Your task to perform on an android device: make emails show in primary in the gmail app Image 0: 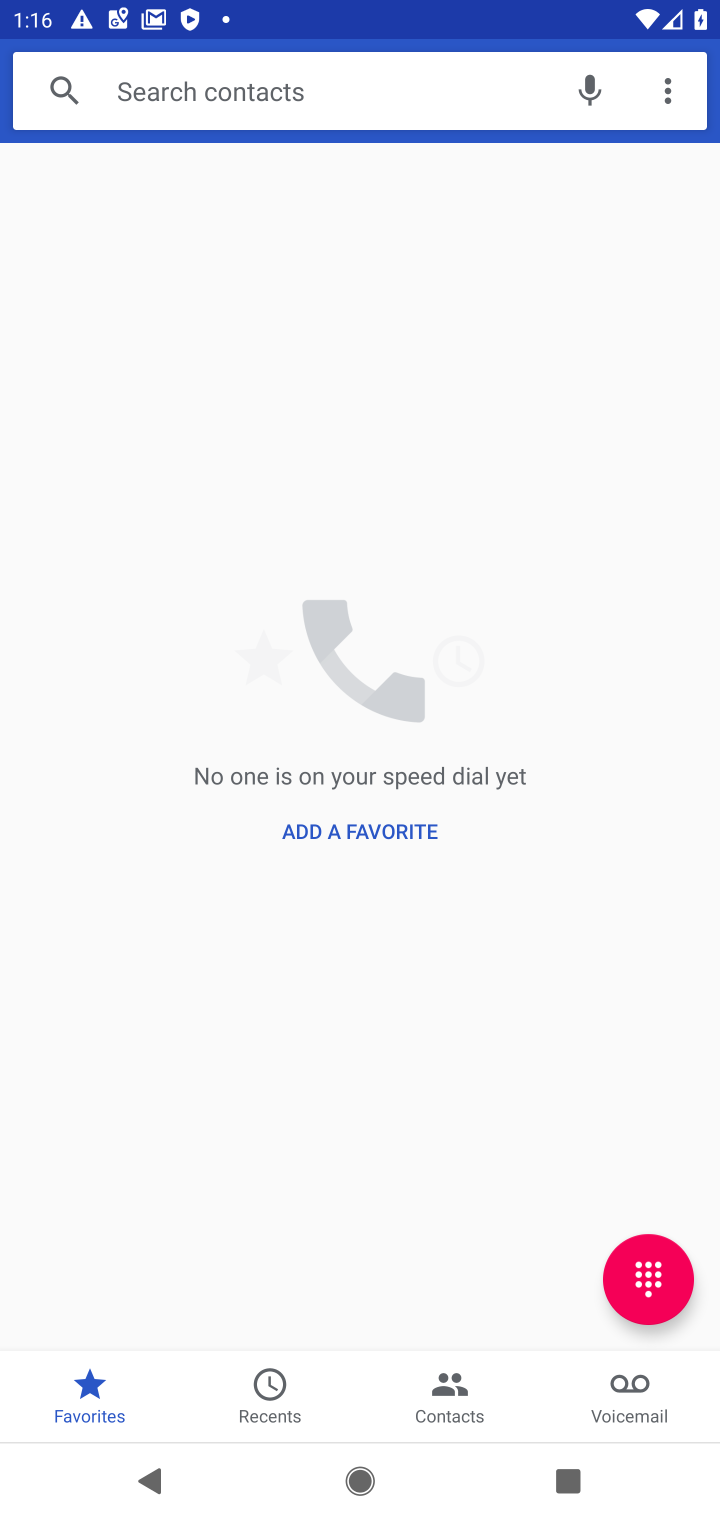
Step 0: press home button
Your task to perform on an android device: make emails show in primary in the gmail app Image 1: 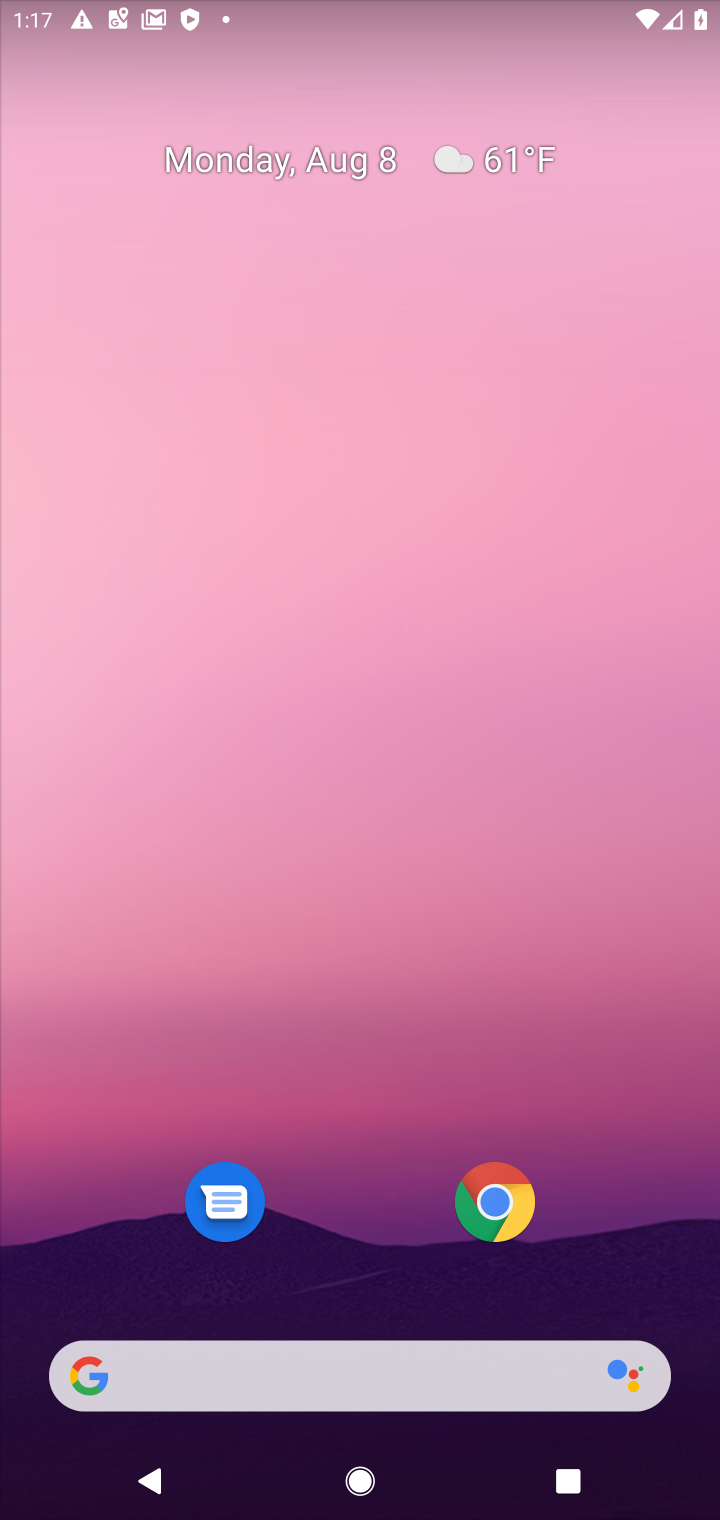
Step 1: drag from (653, 1261) to (649, 76)
Your task to perform on an android device: make emails show in primary in the gmail app Image 2: 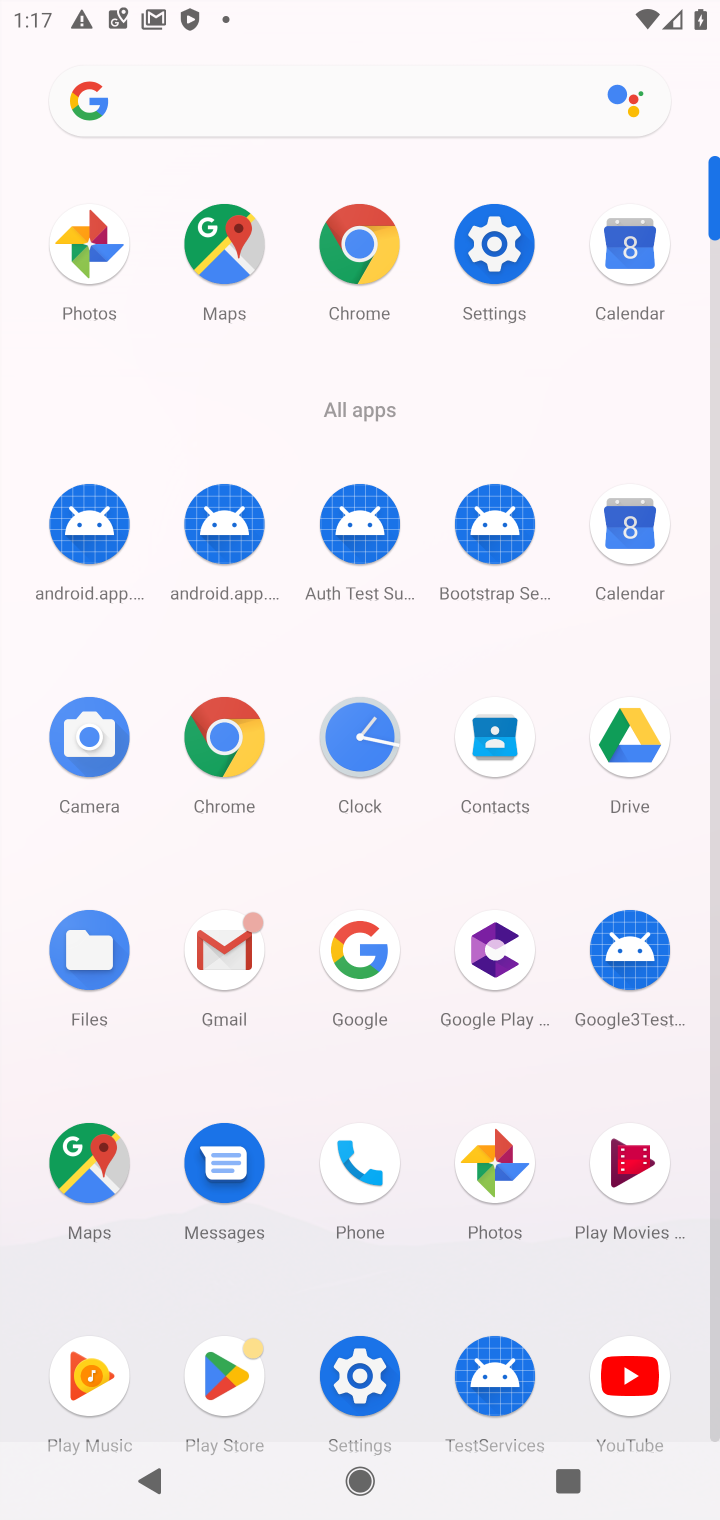
Step 2: click (215, 952)
Your task to perform on an android device: make emails show in primary in the gmail app Image 3: 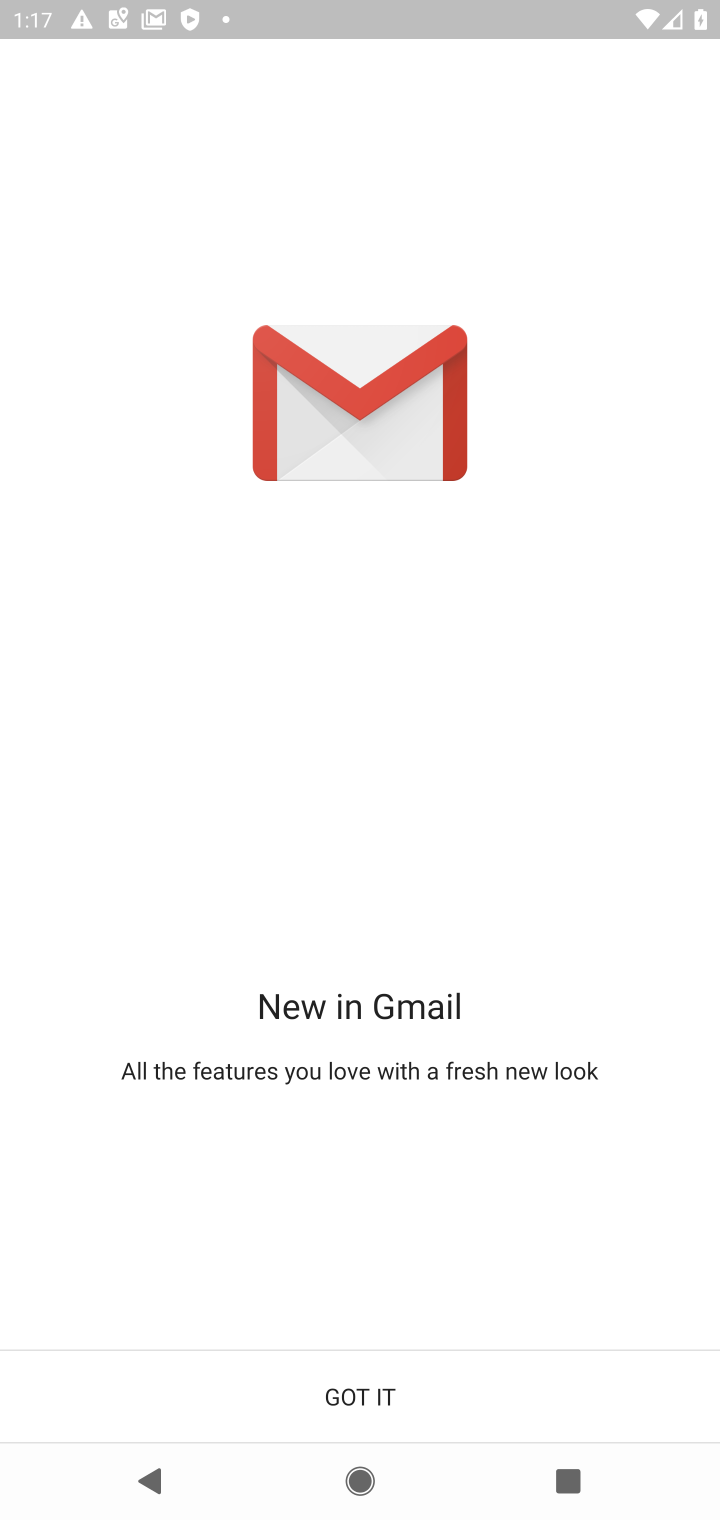
Step 3: click (364, 1391)
Your task to perform on an android device: make emails show in primary in the gmail app Image 4: 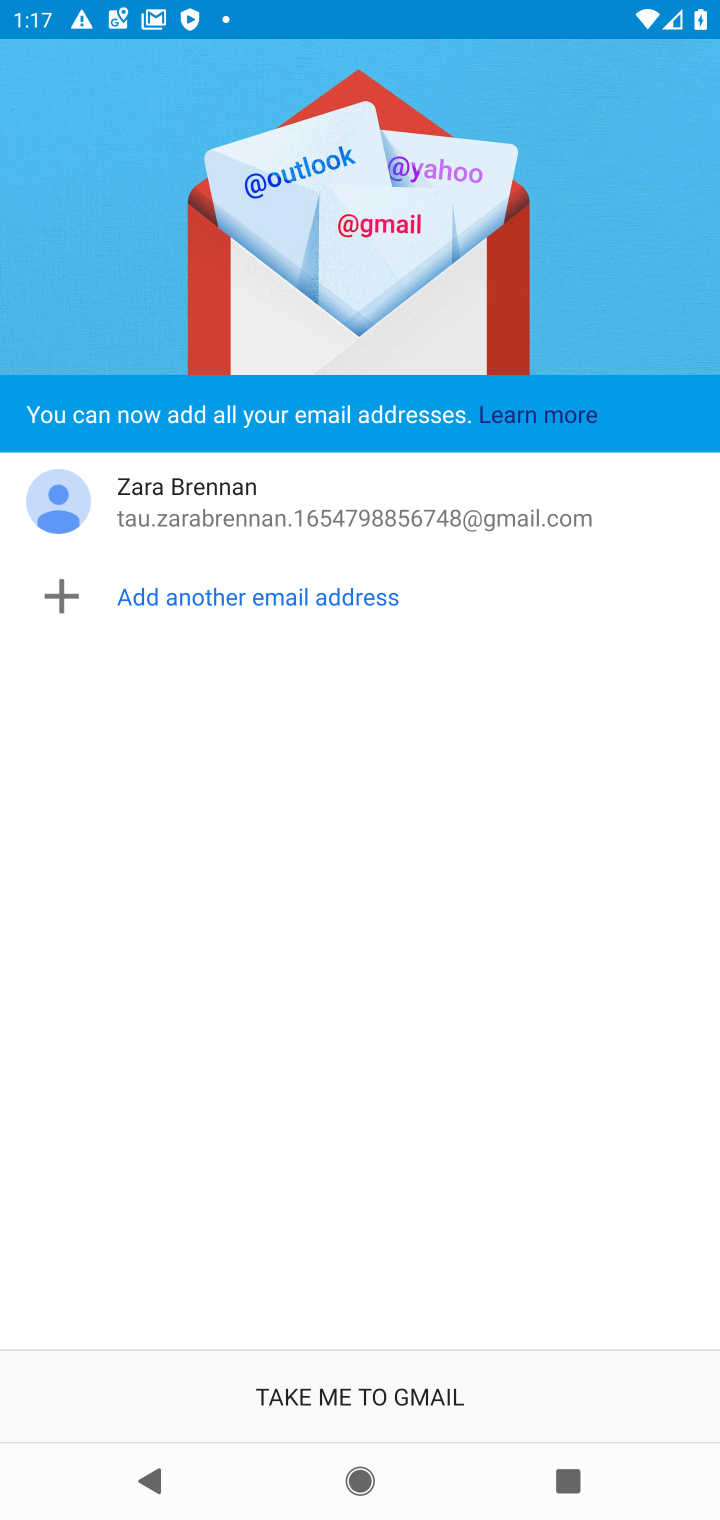
Step 4: click (364, 1391)
Your task to perform on an android device: make emails show in primary in the gmail app Image 5: 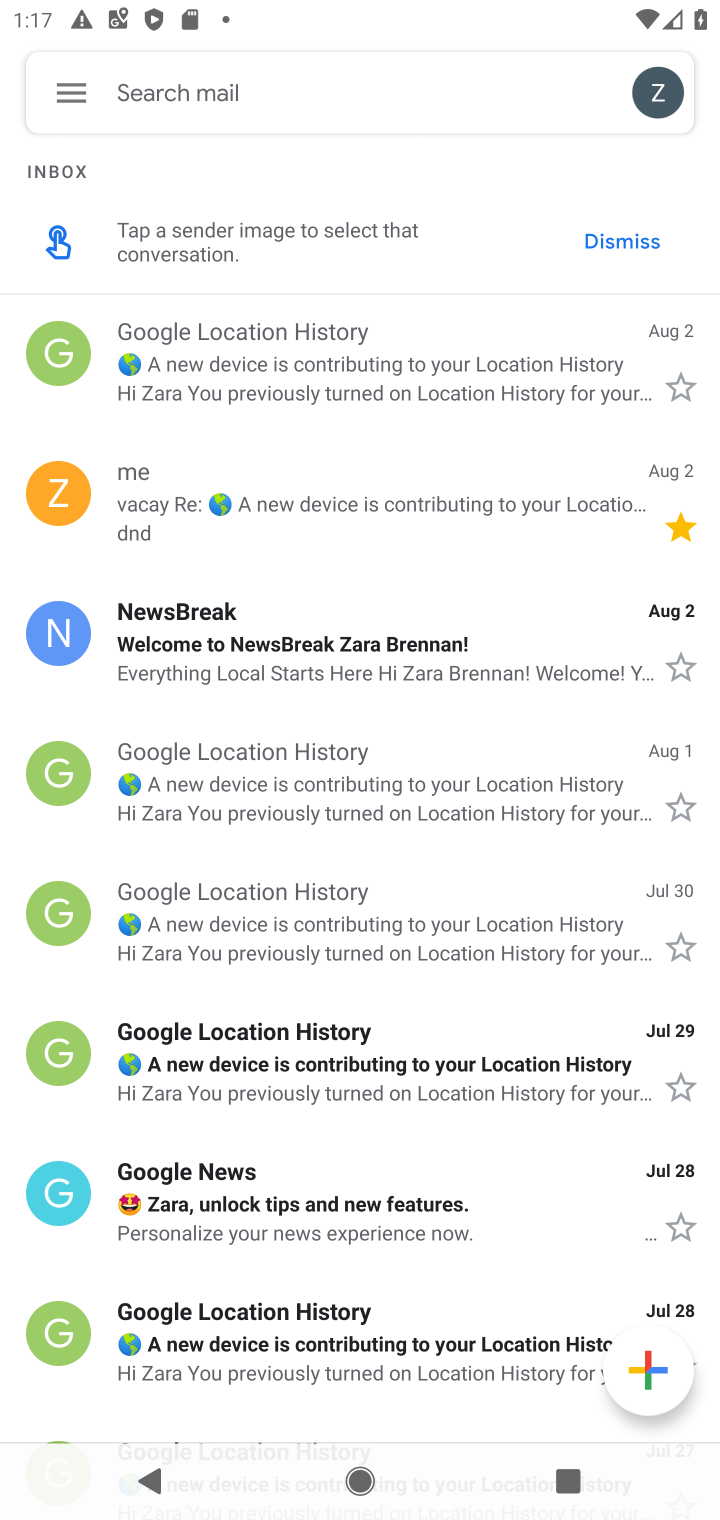
Step 5: click (64, 100)
Your task to perform on an android device: make emails show in primary in the gmail app Image 6: 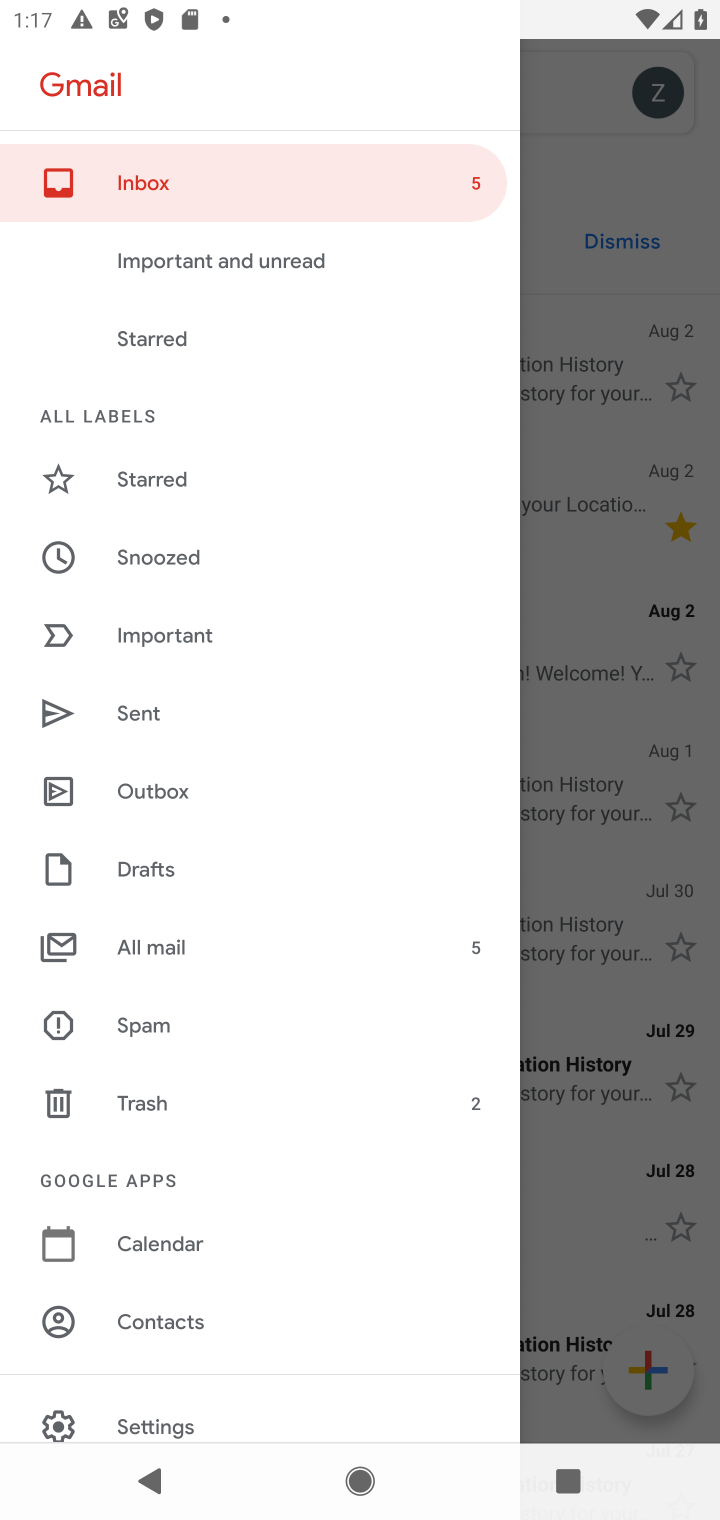
Step 6: drag from (399, 928) to (417, 575)
Your task to perform on an android device: make emails show in primary in the gmail app Image 7: 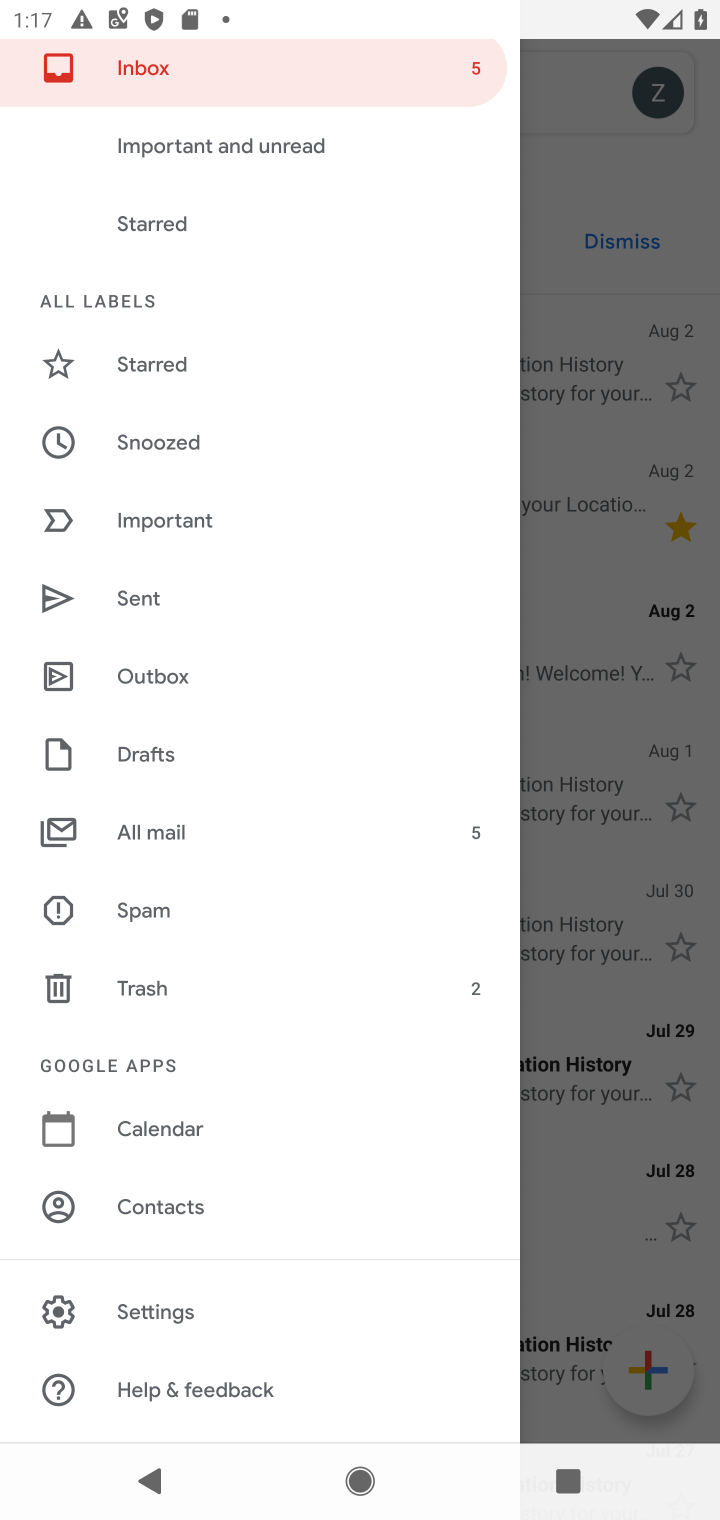
Step 7: click (194, 1315)
Your task to perform on an android device: make emails show in primary in the gmail app Image 8: 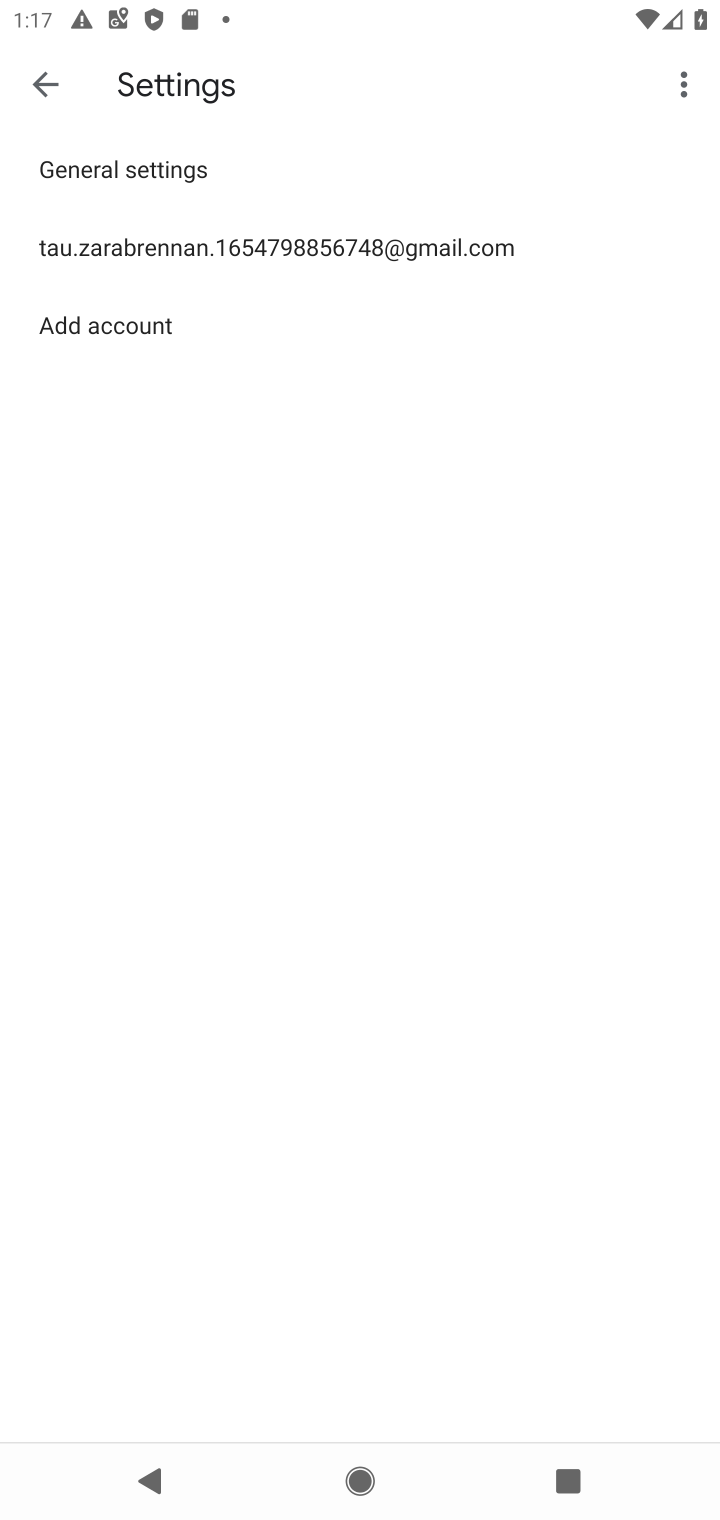
Step 8: click (265, 253)
Your task to perform on an android device: make emails show in primary in the gmail app Image 9: 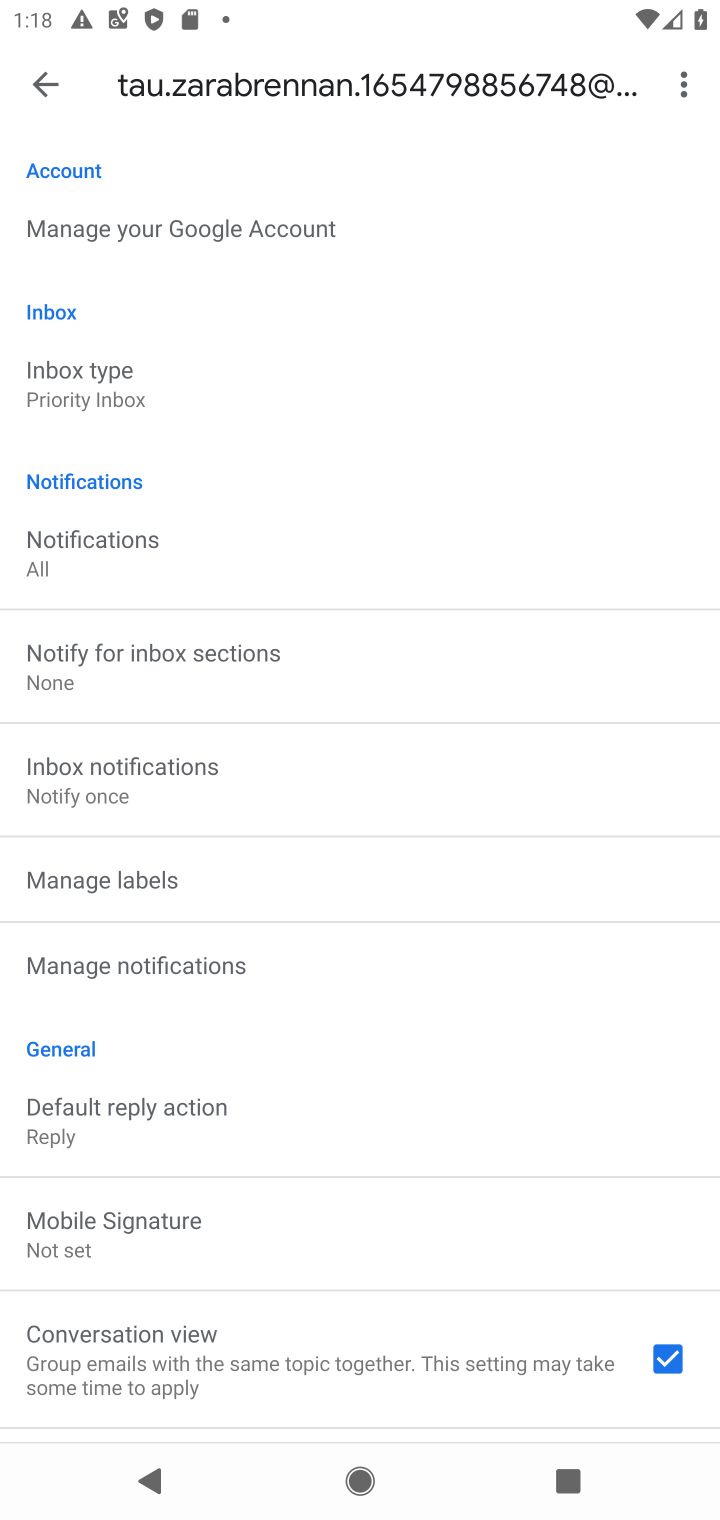
Step 9: click (132, 371)
Your task to perform on an android device: make emails show in primary in the gmail app Image 10: 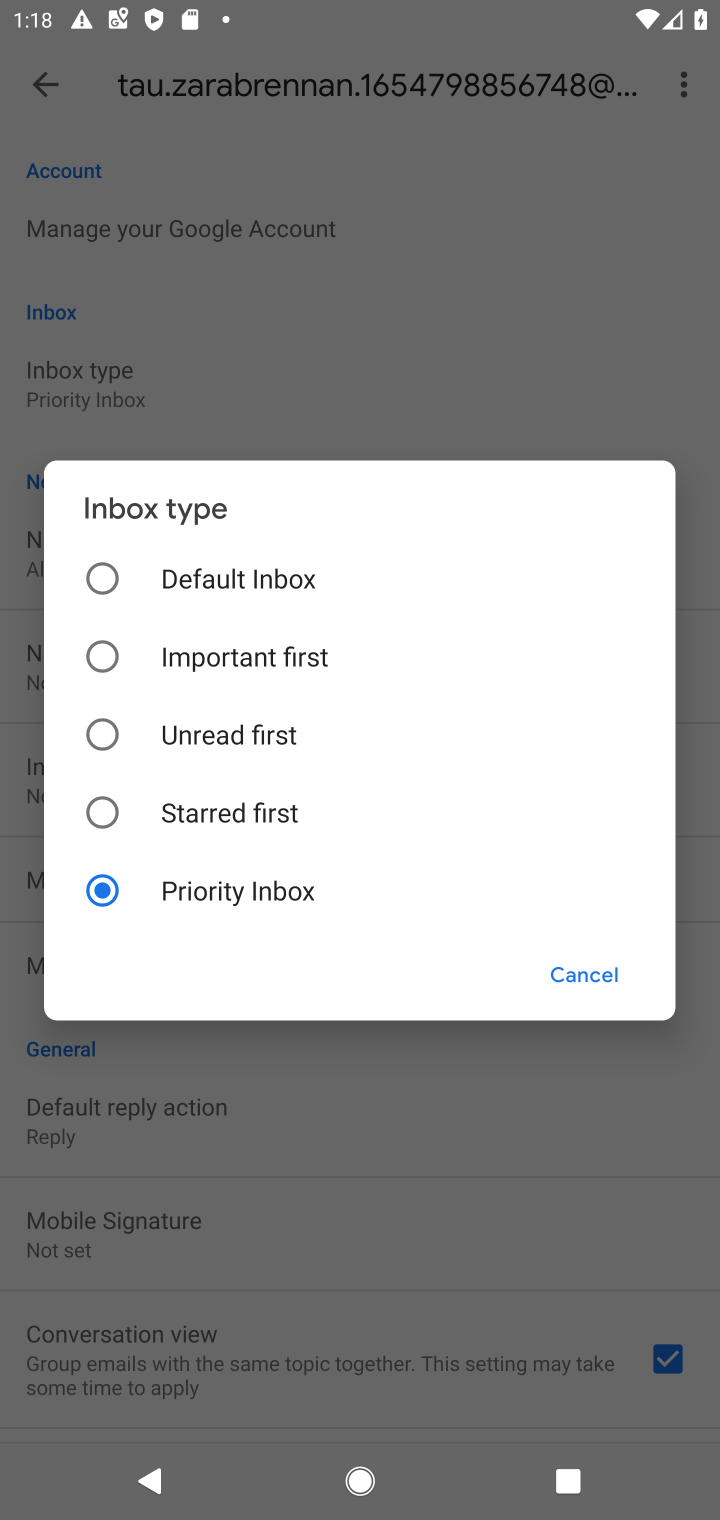
Step 10: click (176, 573)
Your task to perform on an android device: make emails show in primary in the gmail app Image 11: 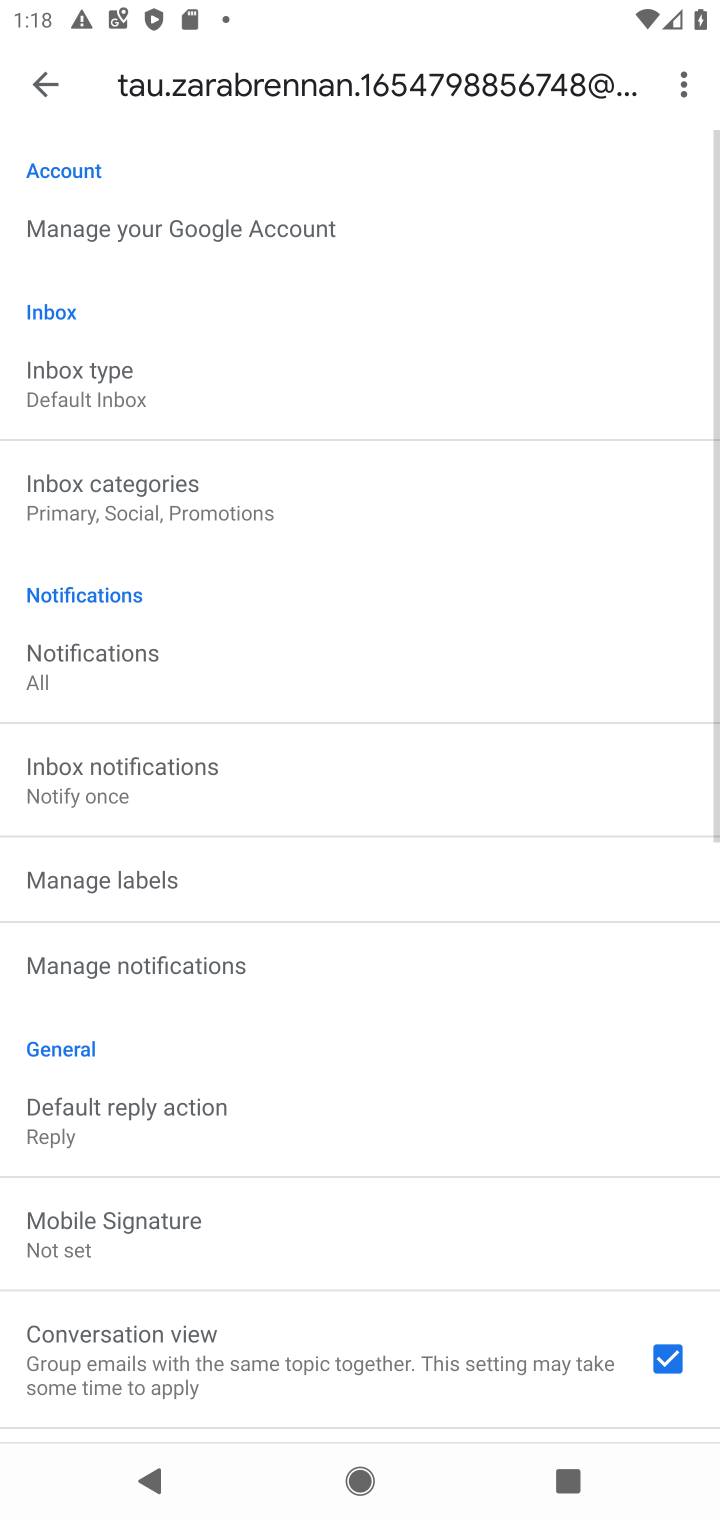
Step 11: click (183, 494)
Your task to perform on an android device: make emails show in primary in the gmail app Image 12: 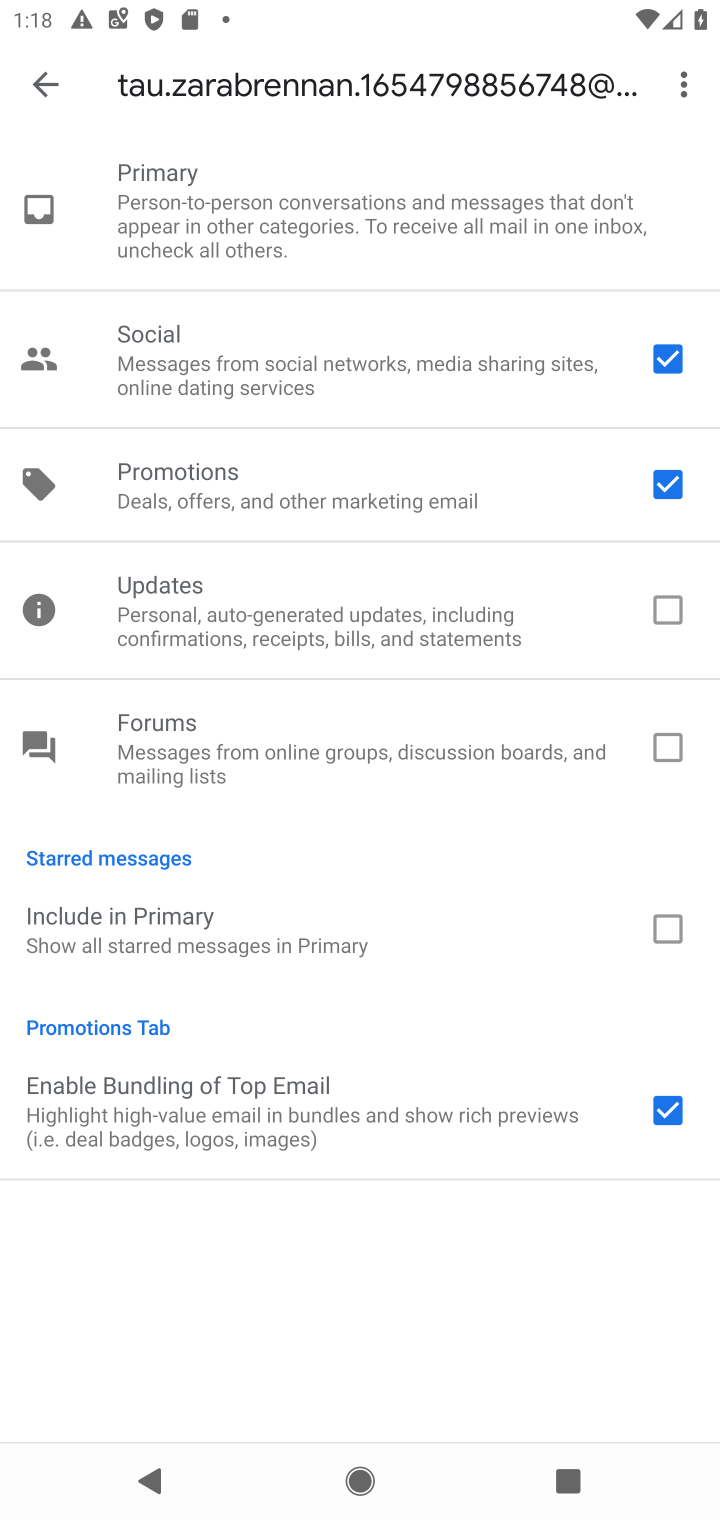
Step 12: click (655, 477)
Your task to perform on an android device: make emails show in primary in the gmail app Image 13: 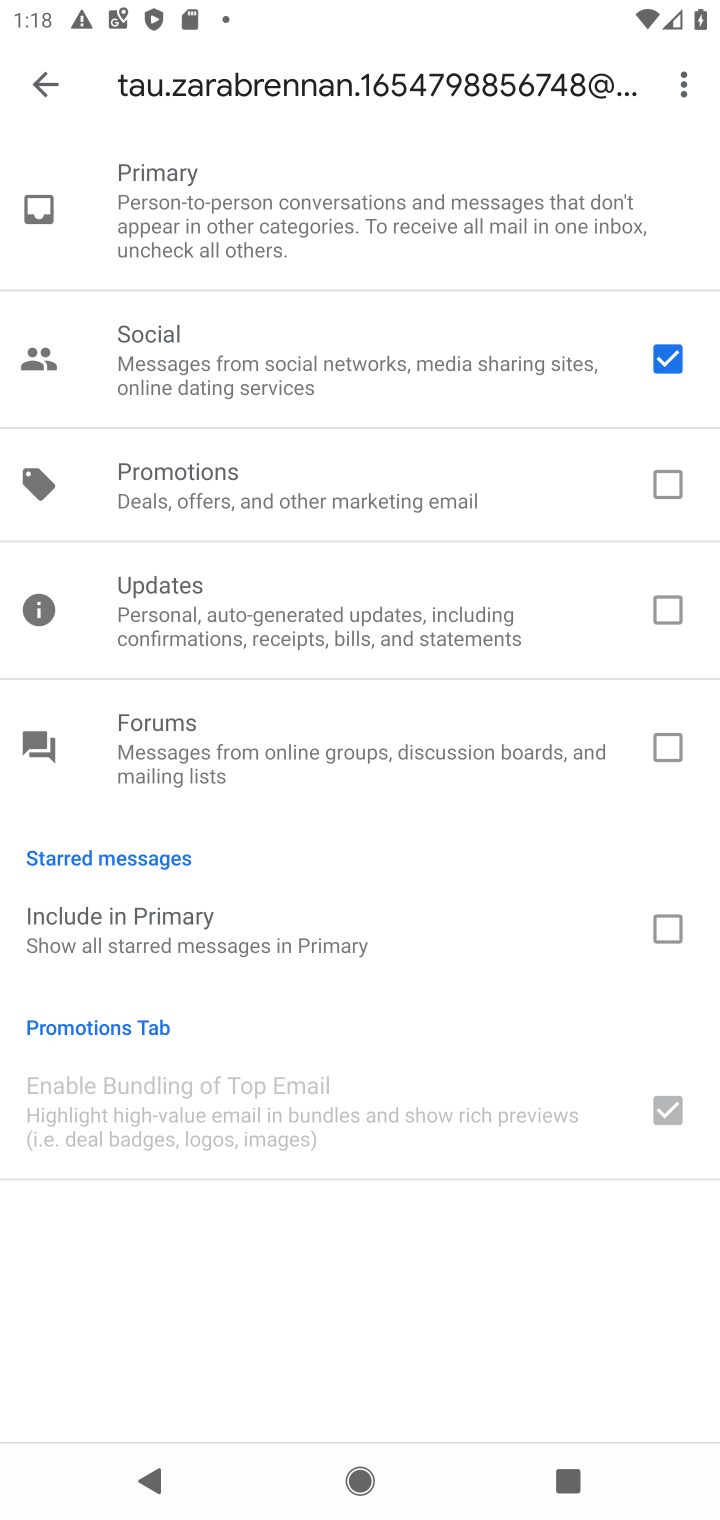
Step 13: click (664, 338)
Your task to perform on an android device: make emails show in primary in the gmail app Image 14: 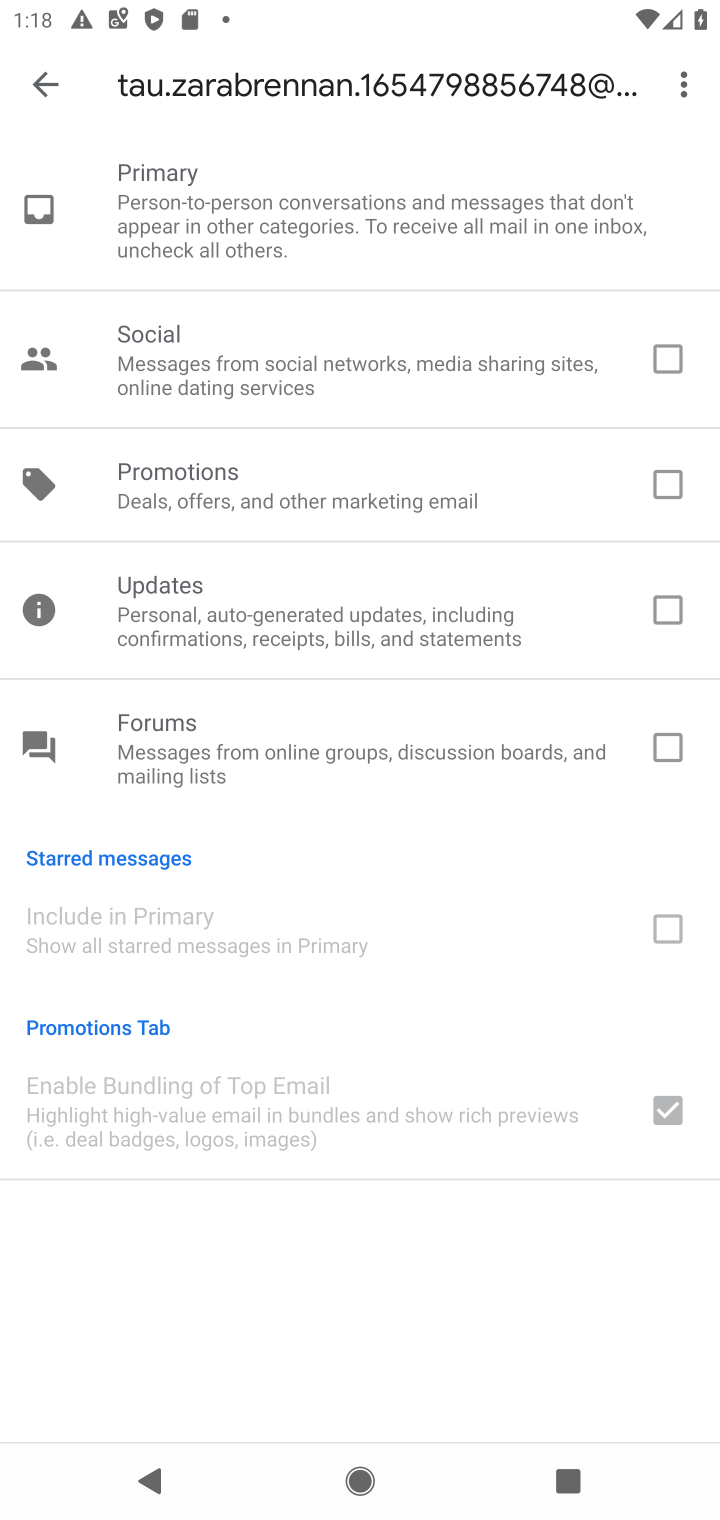
Step 14: task complete